Your task to perform on an android device: Go to Yahoo.com Image 0: 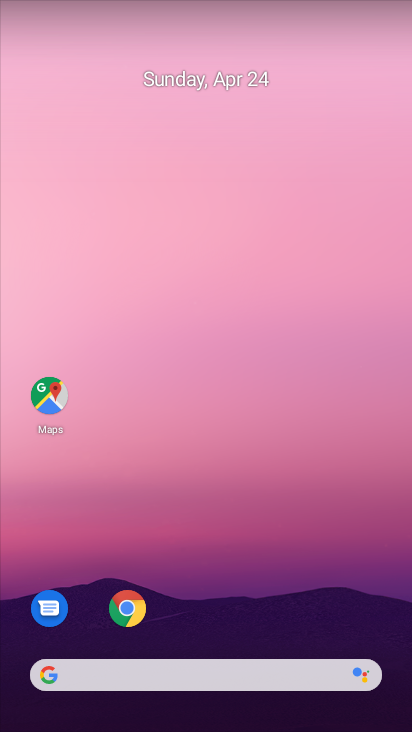
Step 0: click (288, 671)
Your task to perform on an android device: Go to Yahoo.com Image 1: 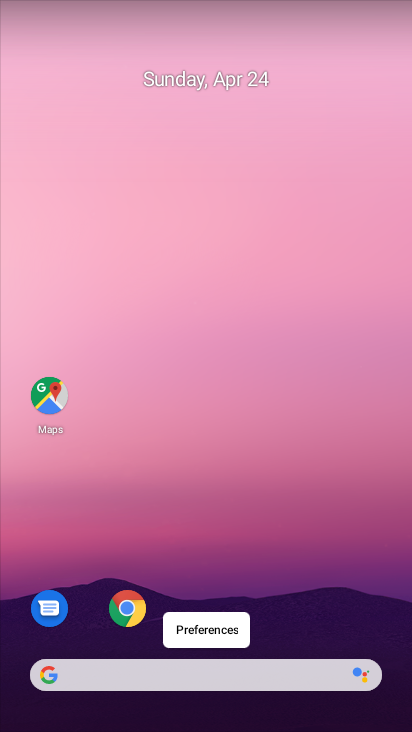
Step 1: click (291, 662)
Your task to perform on an android device: Go to Yahoo.com Image 2: 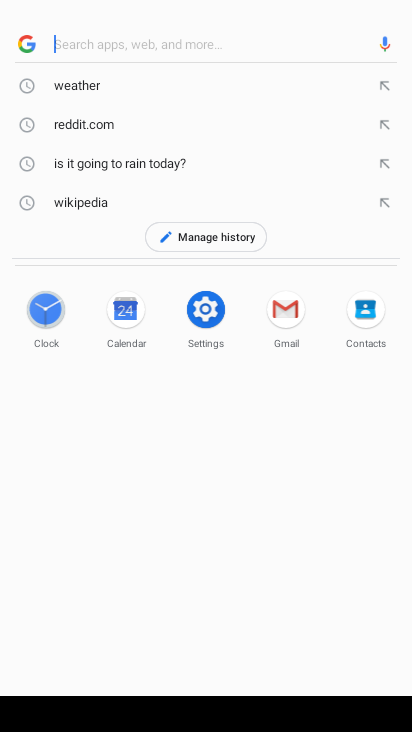
Step 2: type "yahoo.com"
Your task to perform on an android device: Go to Yahoo.com Image 3: 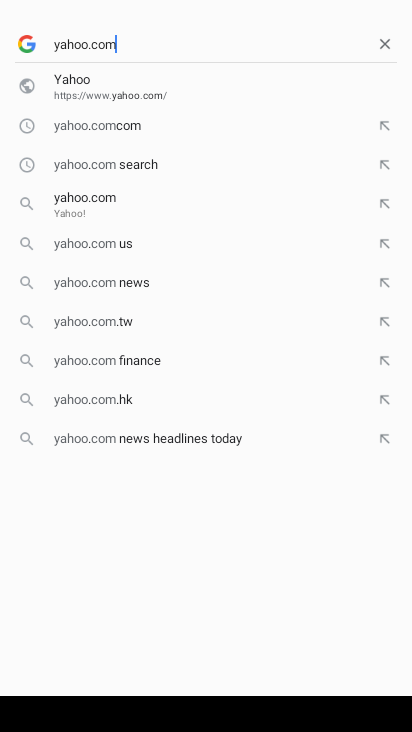
Step 3: click (133, 77)
Your task to perform on an android device: Go to Yahoo.com Image 4: 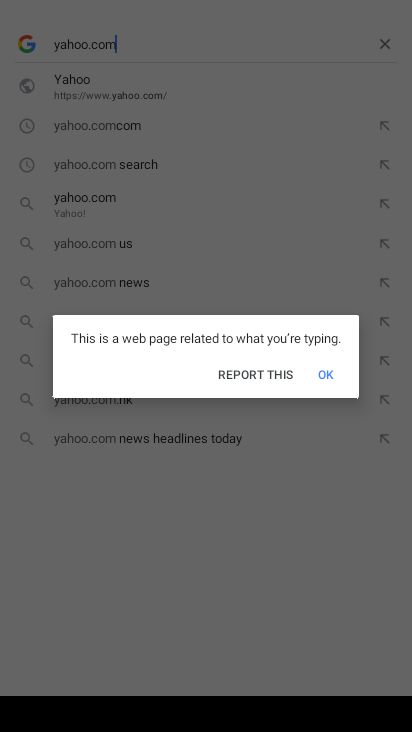
Step 4: click (325, 366)
Your task to perform on an android device: Go to Yahoo.com Image 5: 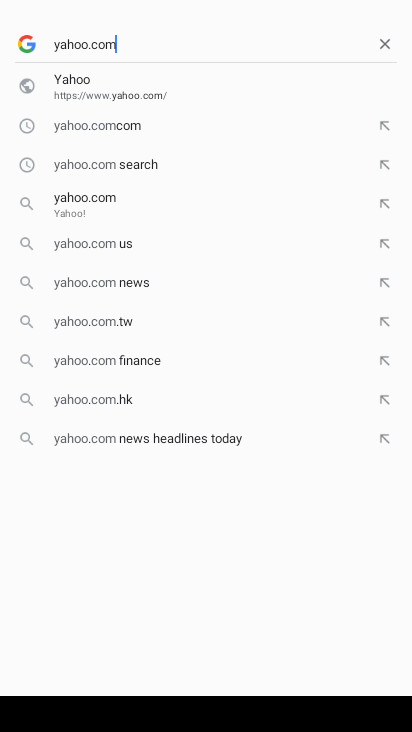
Step 5: click (151, 82)
Your task to perform on an android device: Go to Yahoo.com Image 6: 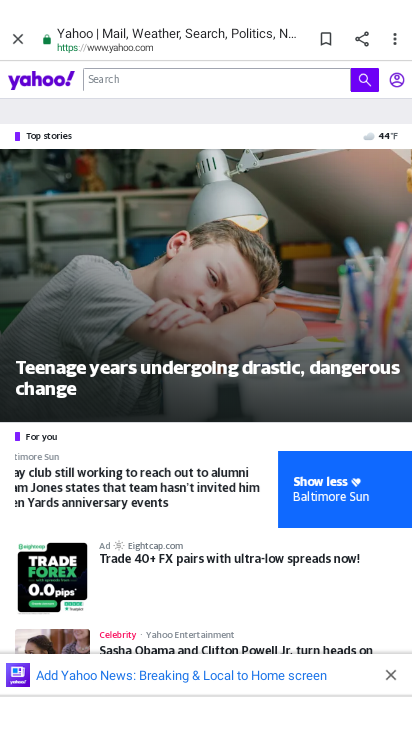
Step 6: task complete